Your task to perform on an android device: toggle javascript in the chrome app Image 0: 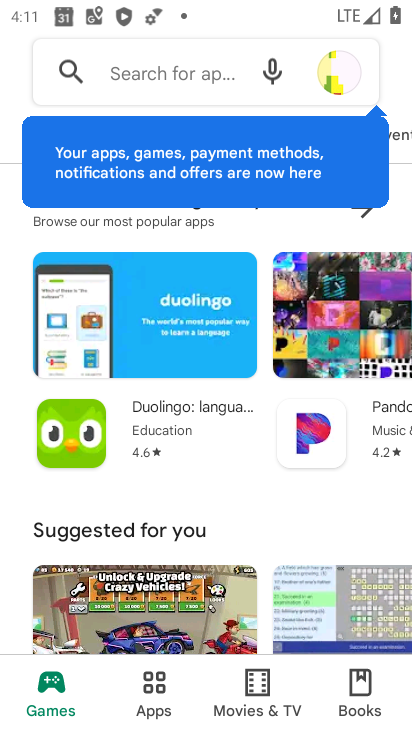
Step 0: press home button
Your task to perform on an android device: toggle javascript in the chrome app Image 1: 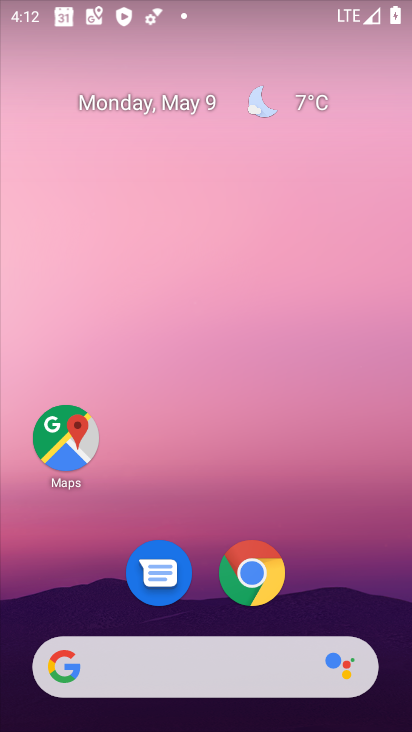
Step 1: click (261, 575)
Your task to perform on an android device: toggle javascript in the chrome app Image 2: 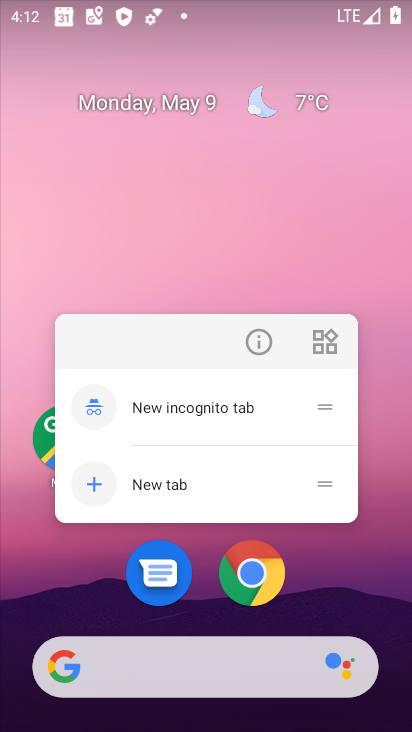
Step 2: click (255, 580)
Your task to perform on an android device: toggle javascript in the chrome app Image 3: 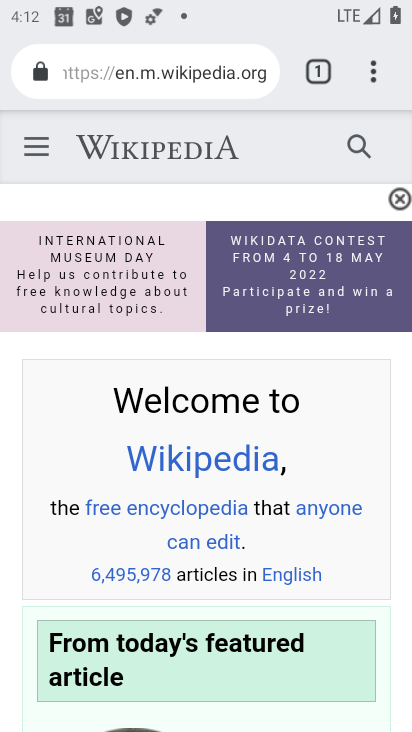
Step 3: drag from (374, 64) to (142, 562)
Your task to perform on an android device: toggle javascript in the chrome app Image 4: 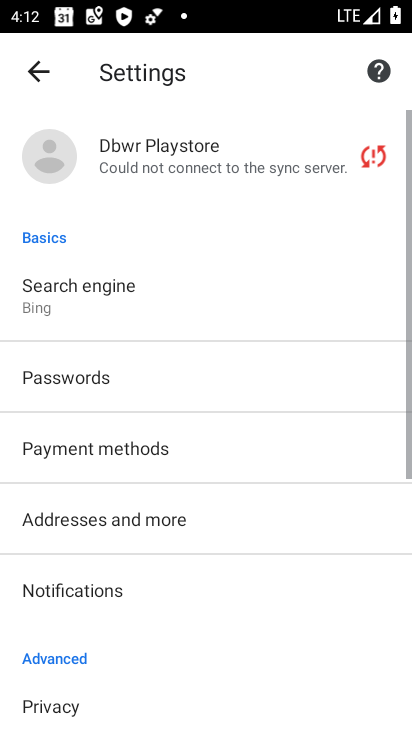
Step 4: drag from (171, 625) to (171, 111)
Your task to perform on an android device: toggle javascript in the chrome app Image 5: 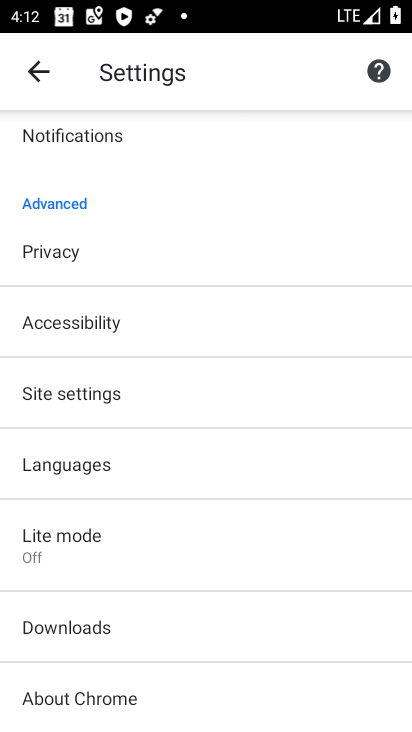
Step 5: click (92, 401)
Your task to perform on an android device: toggle javascript in the chrome app Image 6: 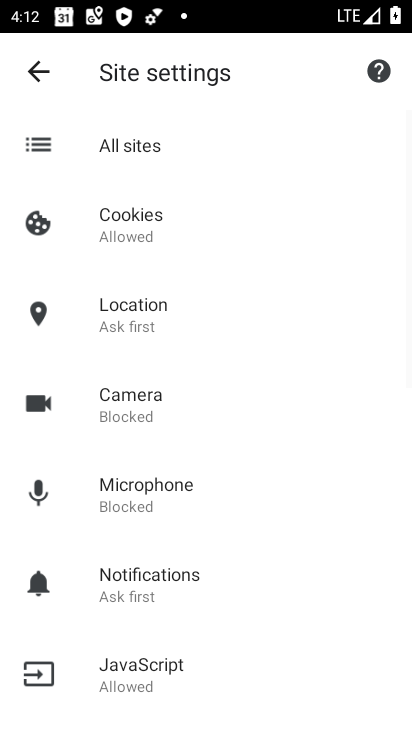
Step 6: click (181, 665)
Your task to perform on an android device: toggle javascript in the chrome app Image 7: 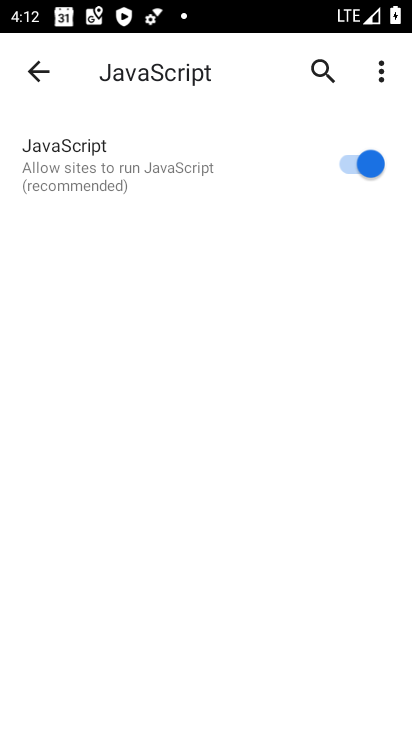
Step 7: click (374, 165)
Your task to perform on an android device: toggle javascript in the chrome app Image 8: 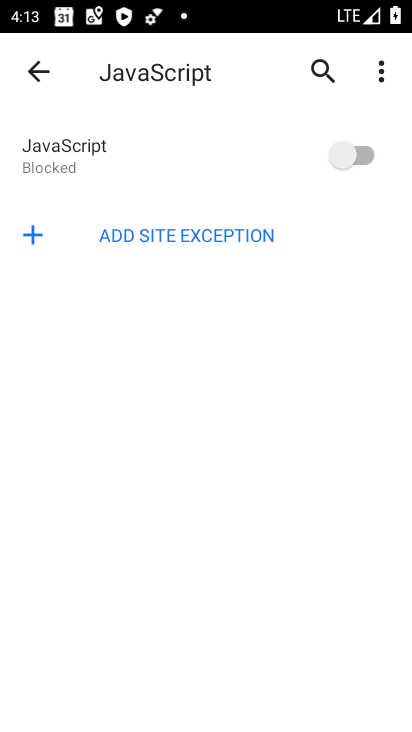
Step 8: task complete